Your task to perform on an android device: Open Google Image 0: 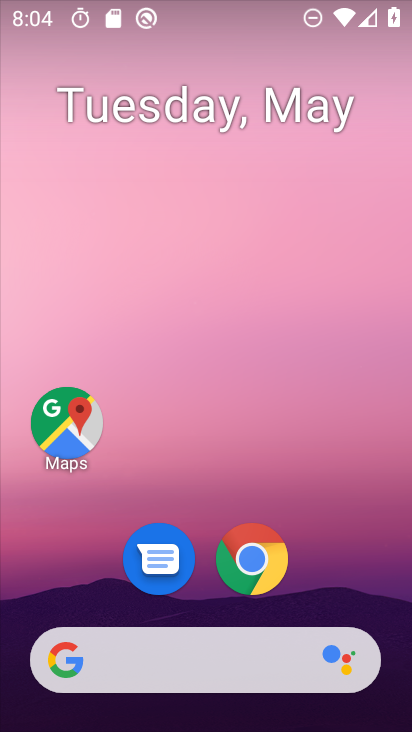
Step 0: drag from (391, 638) to (286, 81)
Your task to perform on an android device: Open Google Image 1: 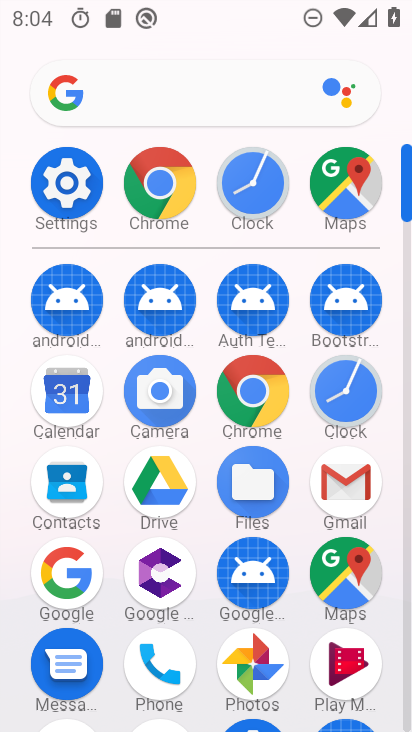
Step 1: click (79, 562)
Your task to perform on an android device: Open Google Image 2: 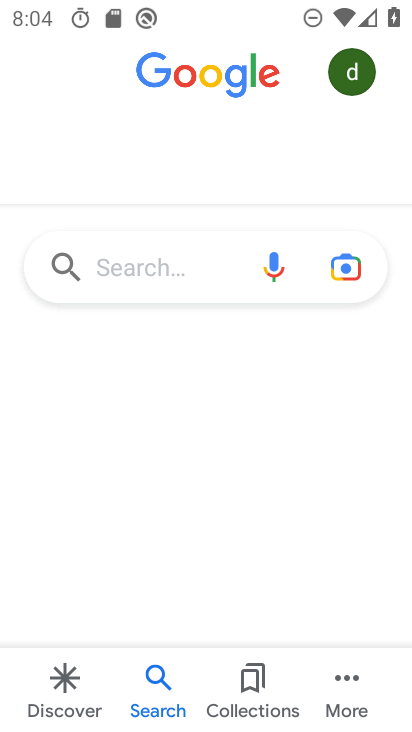
Step 2: task complete